Your task to perform on an android device: When is my next meeting? Image 0: 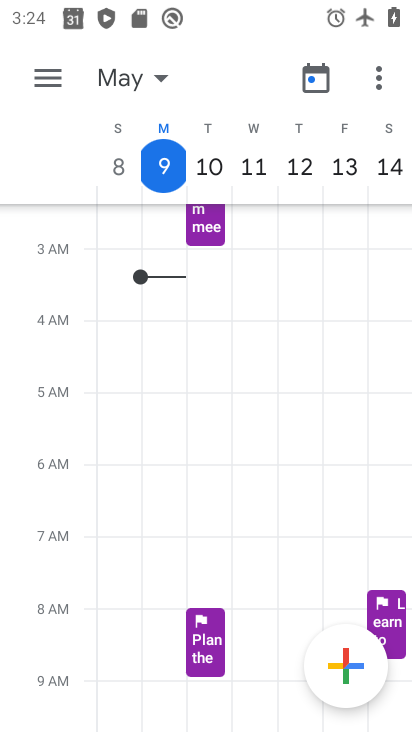
Step 0: click (208, 167)
Your task to perform on an android device: When is my next meeting? Image 1: 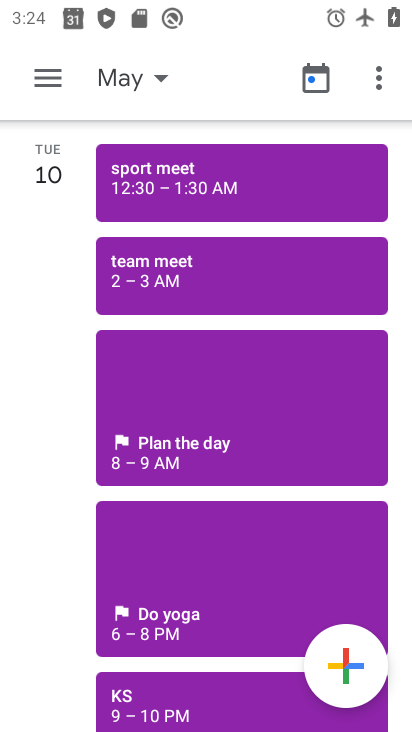
Step 1: task complete